Your task to perform on an android device: Search for Mexican restaurants on Maps Image 0: 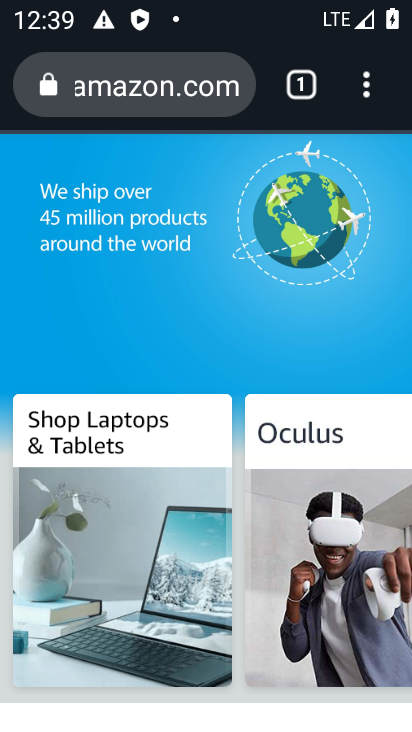
Step 0: press home button
Your task to perform on an android device: Search for Mexican restaurants on Maps Image 1: 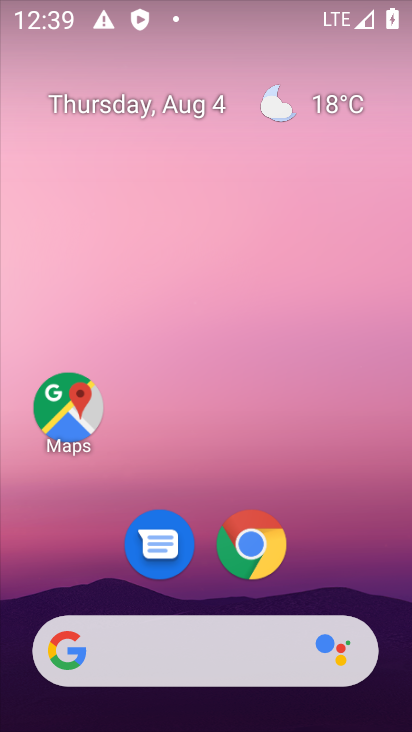
Step 1: click (49, 412)
Your task to perform on an android device: Search for Mexican restaurants on Maps Image 2: 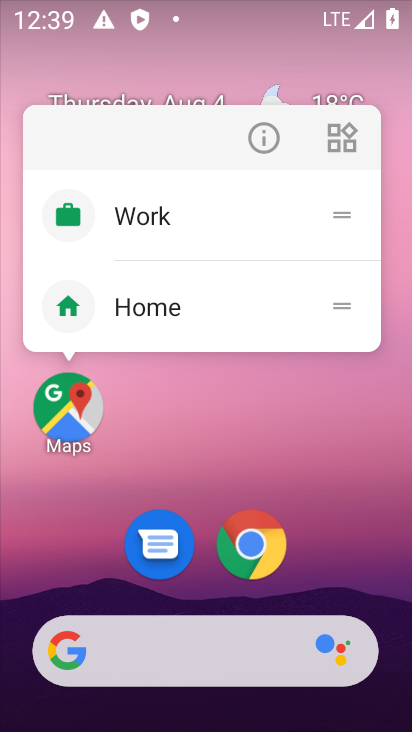
Step 2: click (67, 416)
Your task to perform on an android device: Search for Mexican restaurants on Maps Image 3: 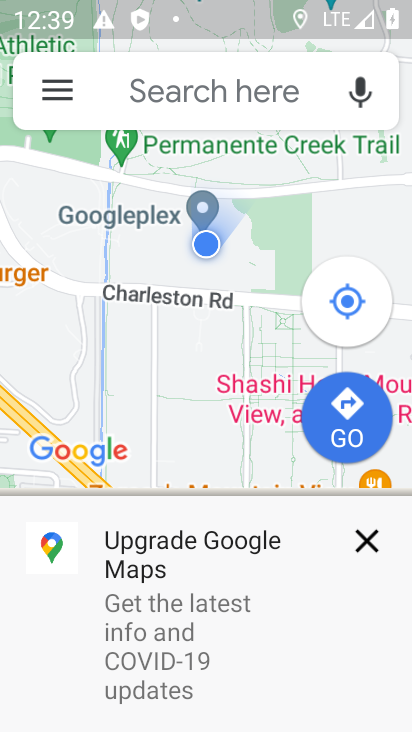
Step 3: click (130, 105)
Your task to perform on an android device: Search for Mexican restaurants on Maps Image 4: 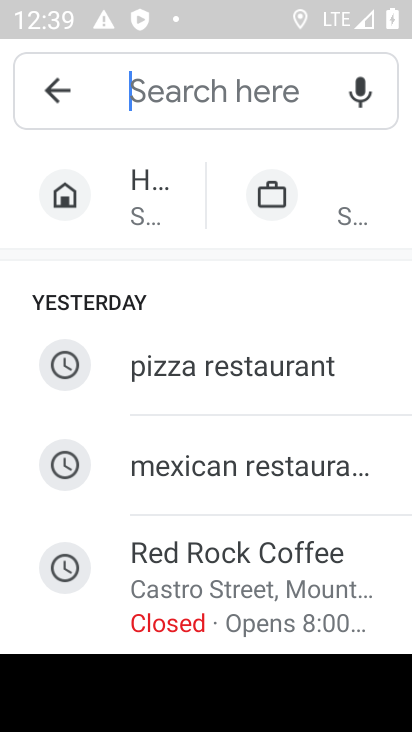
Step 4: type "Mexican restaurants"
Your task to perform on an android device: Search for Mexican restaurants on Maps Image 5: 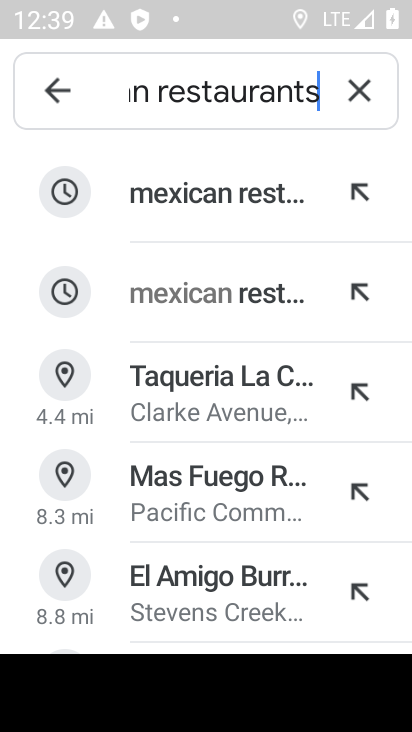
Step 5: click (204, 199)
Your task to perform on an android device: Search for Mexican restaurants on Maps Image 6: 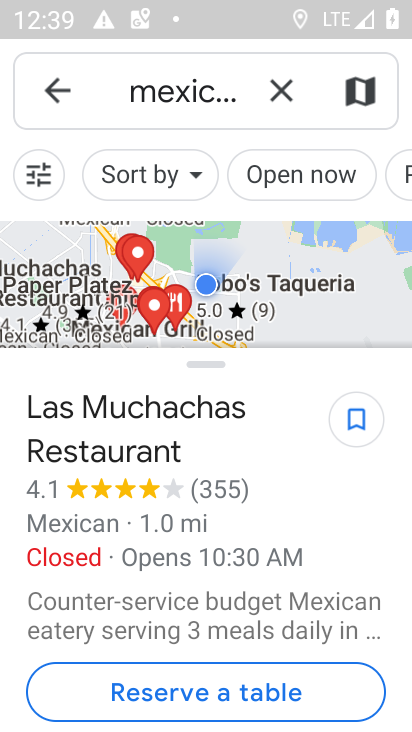
Step 6: task complete